Your task to perform on an android device: What's the weather today? Image 0: 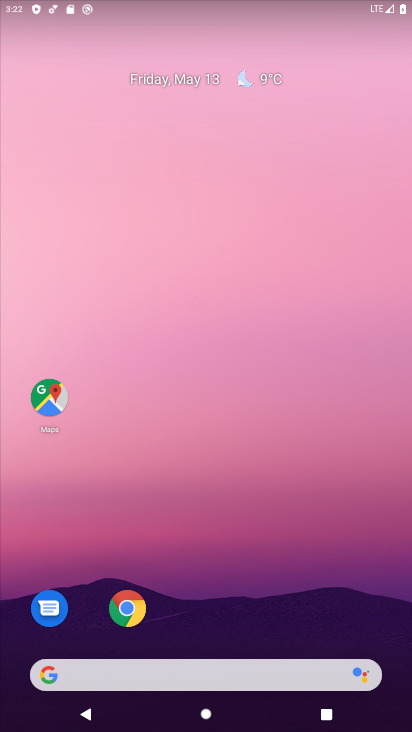
Step 0: click (219, 74)
Your task to perform on an android device: What's the weather today? Image 1: 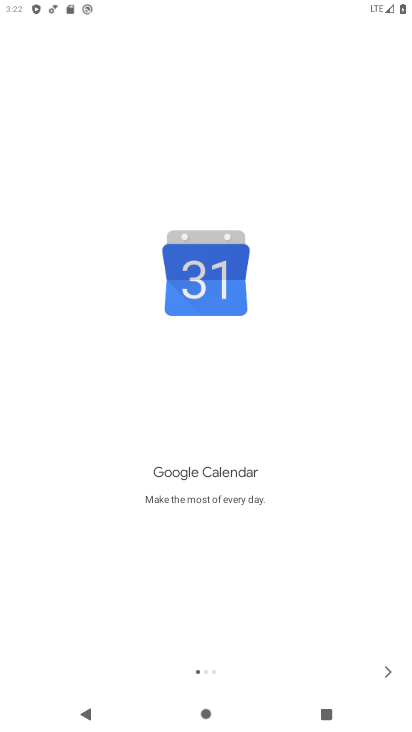
Step 1: press home button
Your task to perform on an android device: What's the weather today? Image 2: 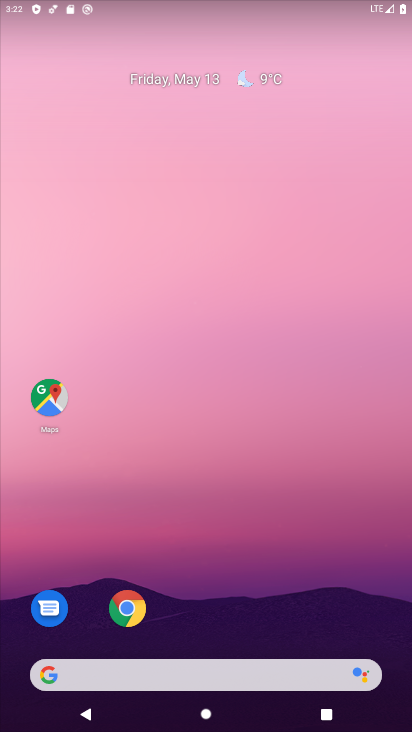
Step 2: click (266, 81)
Your task to perform on an android device: What's the weather today? Image 3: 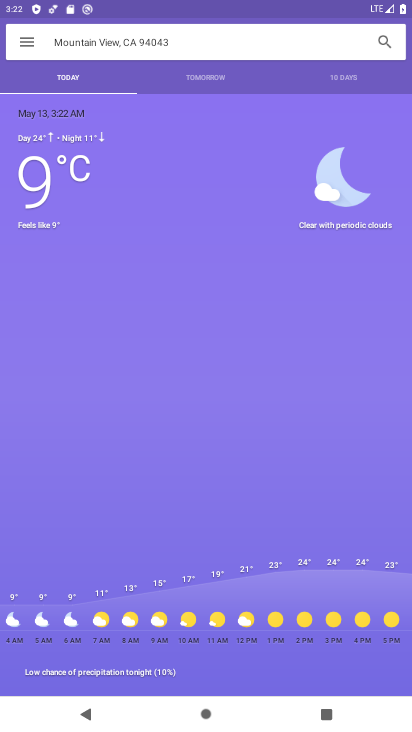
Step 3: task complete